Your task to perform on an android device: change alarm snooze length Image 0: 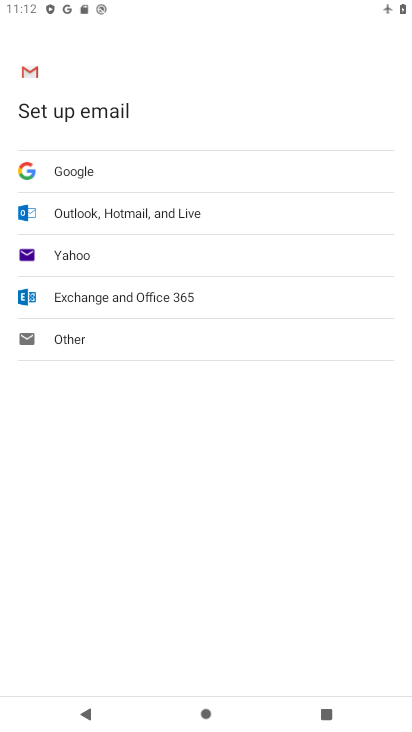
Step 0: press home button
Your task to perform on an android device: change alarm snooze length Image 1: 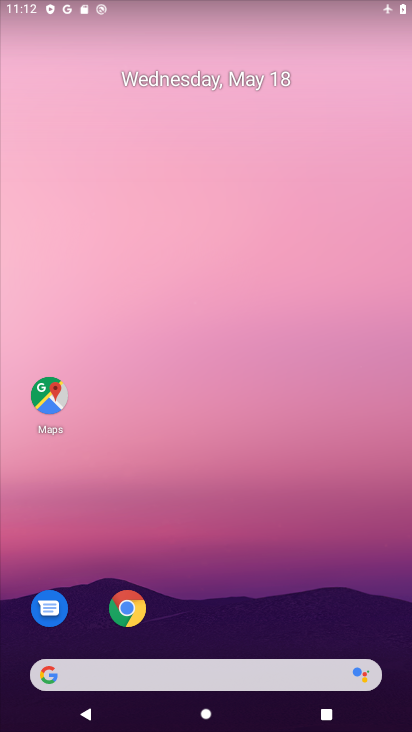
Step 1: drag from (236, 497) to (249, 184)
Your task to perform on an android device: change alarm snooze length Image 2: 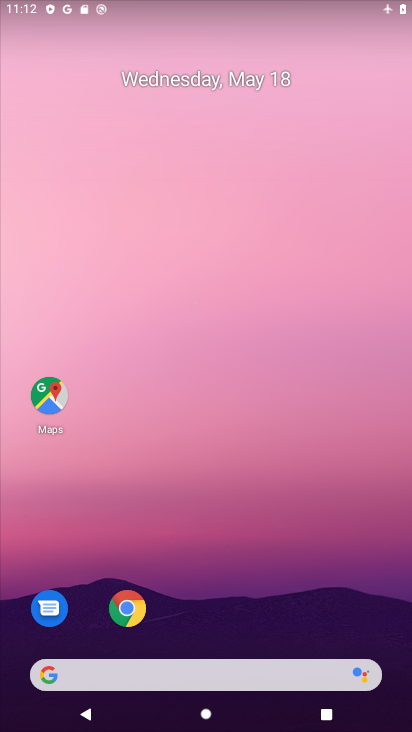
Step 2: drag from (183, 609) to (148, 138)
Your task to perform on an android device: change alarm snooze length Image 3: 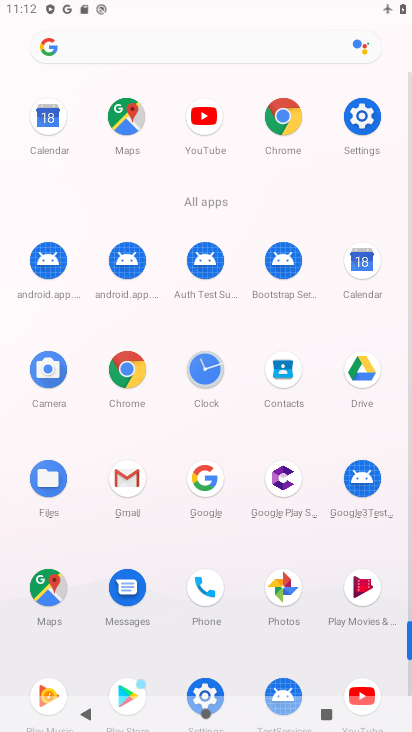
Step 3: click (186, 384)
Your task to perform on an android device: change alarm snooze length Image 4: 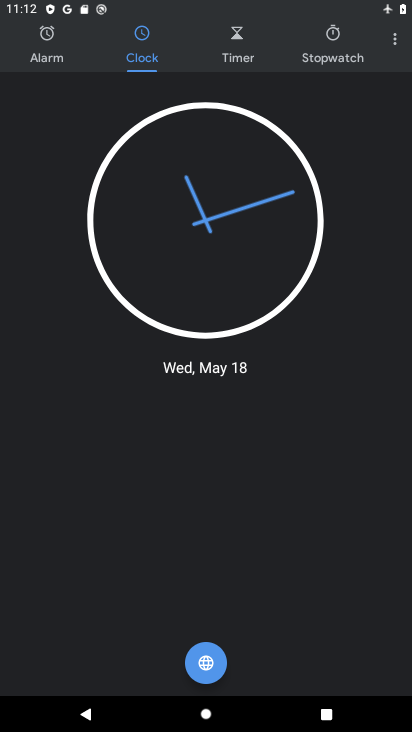
Step 4: click (397, 40)
Your task to perform on an android device: change alarm snooze length Image 5: 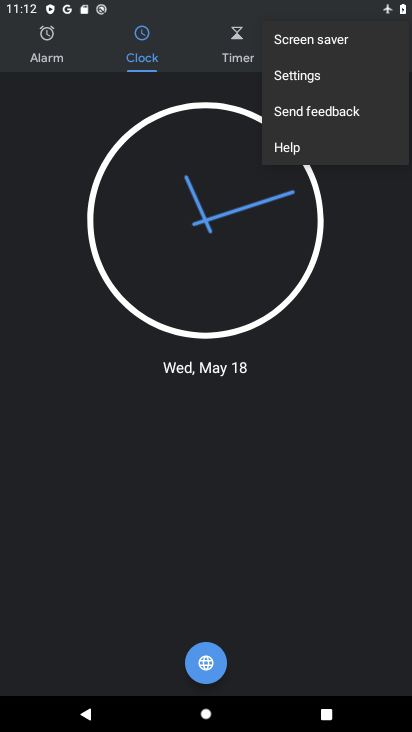
Step 5: click (300, 72)
Your task to perform on an android device: change alarm snooze length Image 6: 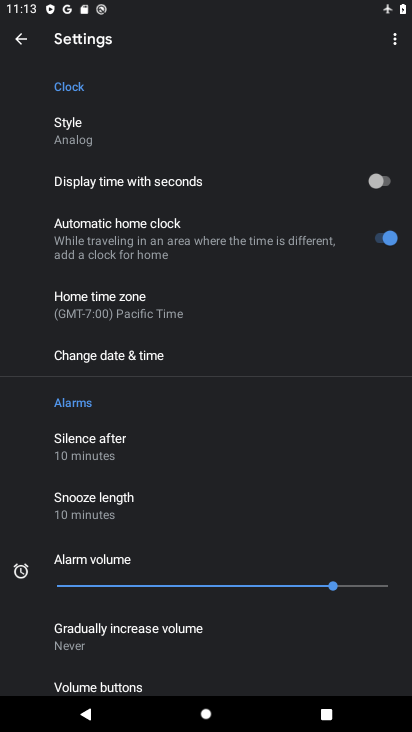
Step 6: click (98, 516)
Your task to perform on an android device: change alarm snooze length Image 7: 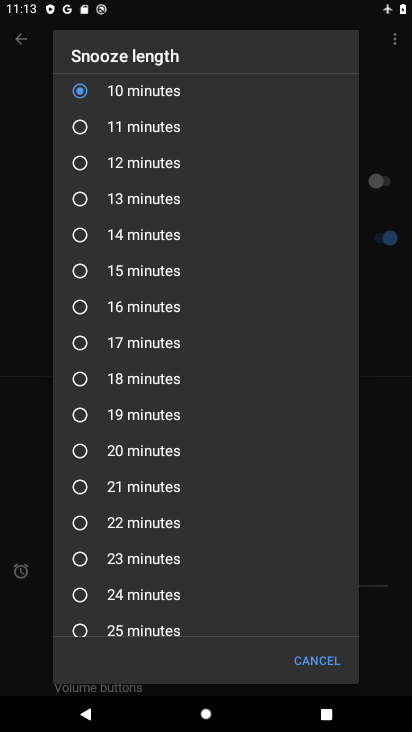
Step 7: click (126, 598)
Your task to perform on an android device: change alarm snooze length Image 8: 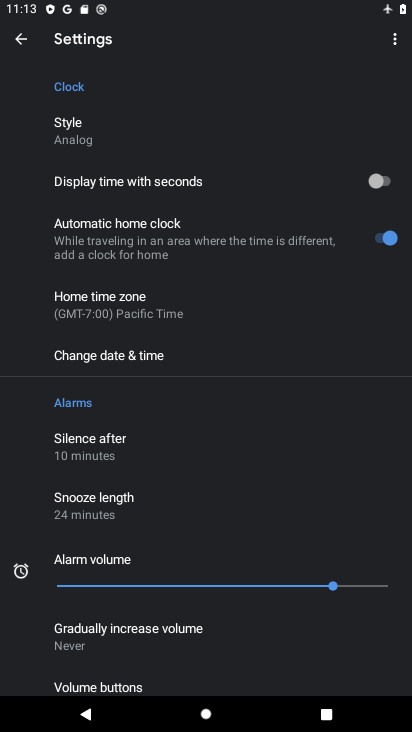
Step 8: task complete